Your task to perform on an android device: toggle sleep mode Image 0: 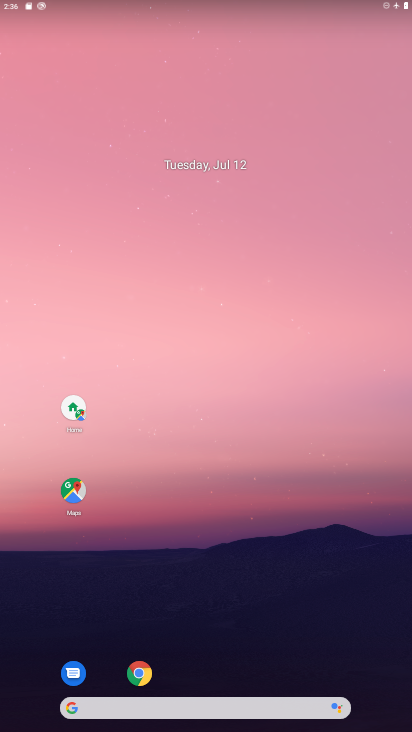
Step 0: drag from (245, 661) to (238, 302)
Your task to perform on an android device: toggle sleep mode Image 1: 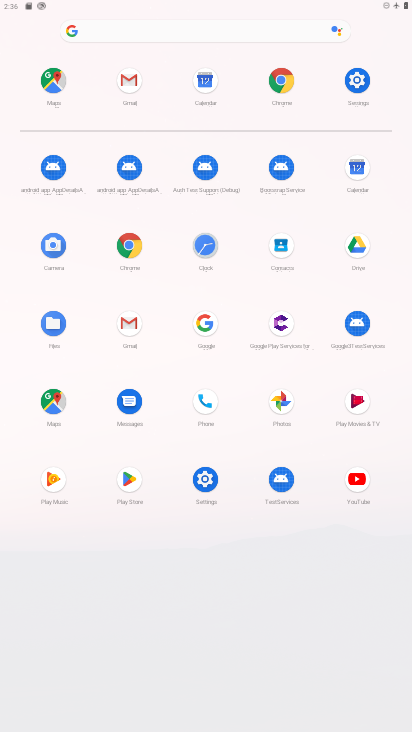
Step 1: click (347, 76)
Your task to perform on an android device: toggle sleep mode Image 2: 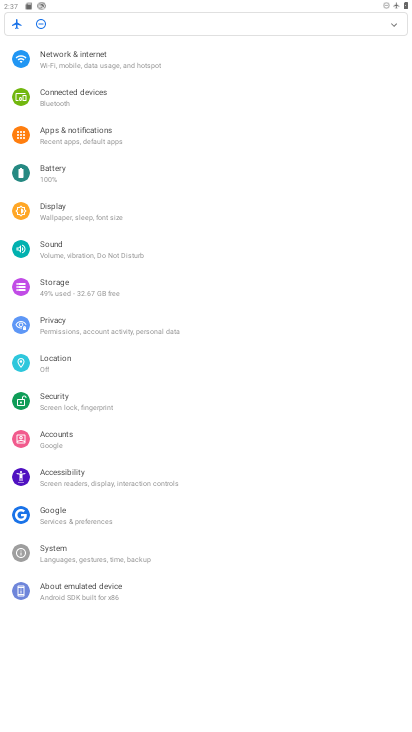
Step 2: task complete